Your task to perform on an android device: open app "Google Play Music" (install if not already installed) Image 0: 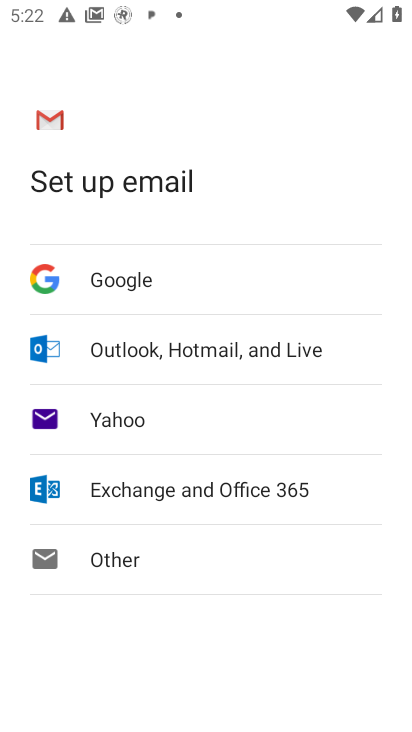
Step 0: press home button
Your task to perform on an android device: open app "Google Play Music" (install if not already installed) Image 1: 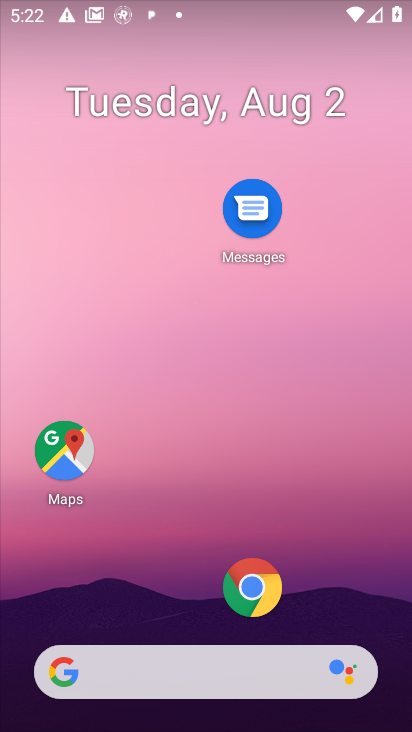
Step 1: drag from (157, 576) to (151, 135)
Your task to perform on an android device: open app "Google Play Music" (install if not already installed) Image 2: 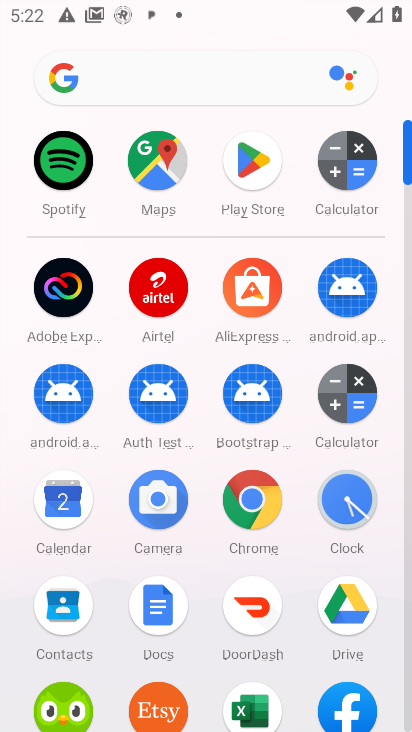
Step 2: click (247, 164)
Your task to perform on an android device: open app "Google Play Music" (install if not already installed) Image 3: 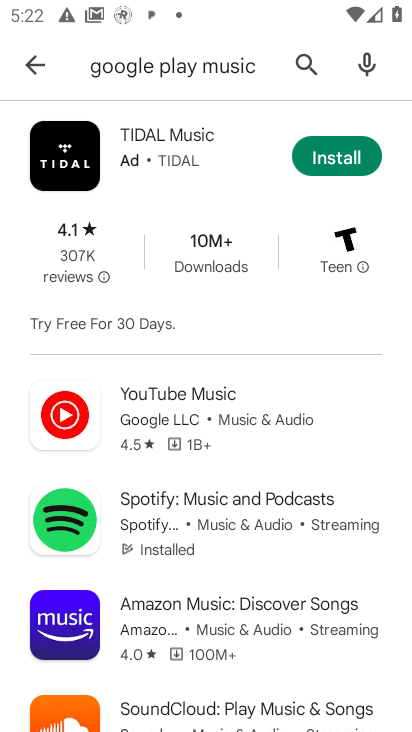
Step 3: click (301, 79)
Your task to perform on an android device: open app "Google Play Music" (install if not already installed) Image 4: 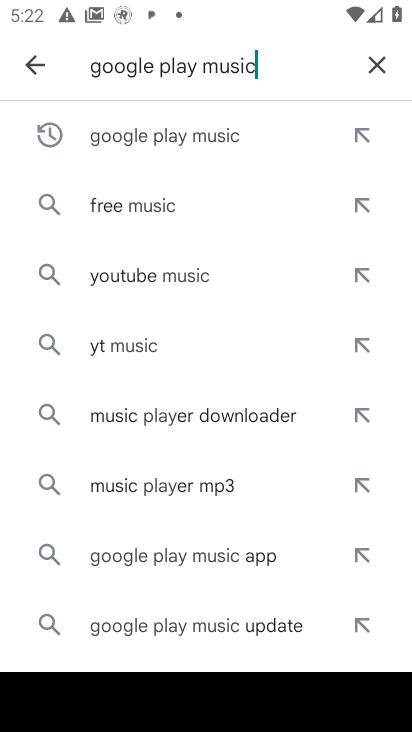
Step 4: click (379, 56)
Your task to perform on an android device: open app "Google Play Music" (install if not already installed) Image 5: 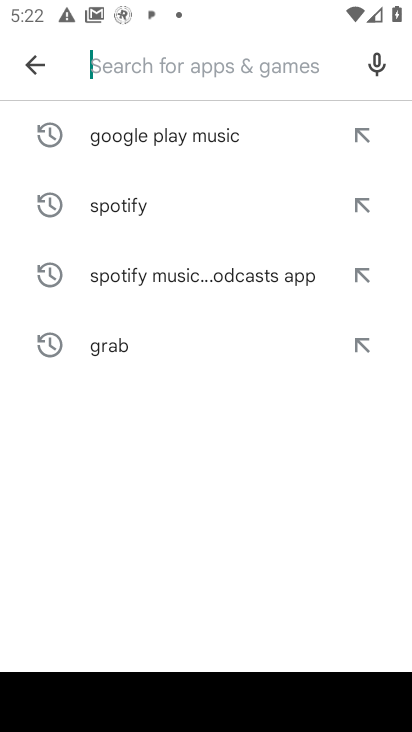
Step 5: type "Google Play Music"
Your task to perform on an android device: open app "Google Play Music" (install if not already installed) Image 6: 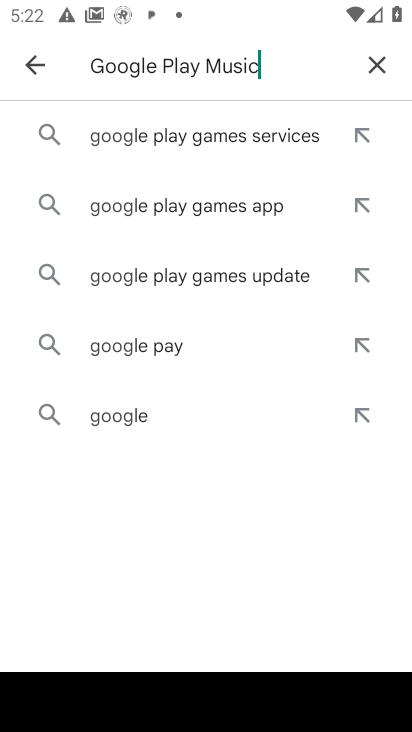
Step 6: type ""
Your task to perform on an android device: open app "Google Play Music" (install if not already installed) Image 7: 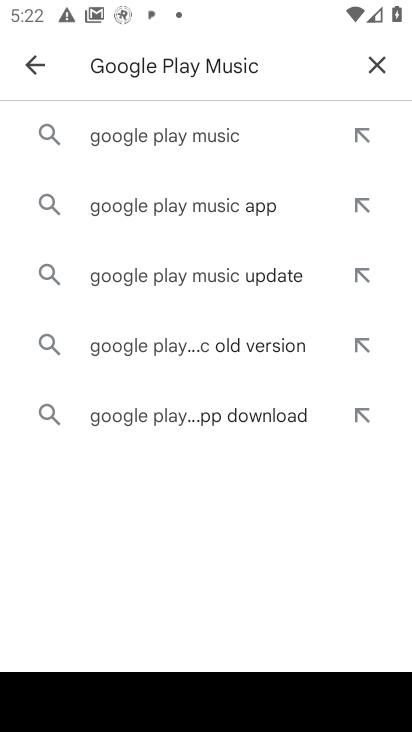
Step 7: click (185, 143)
Your task to perform on an android device: open app "Google Play Music" (install if not already installed) Image 8: 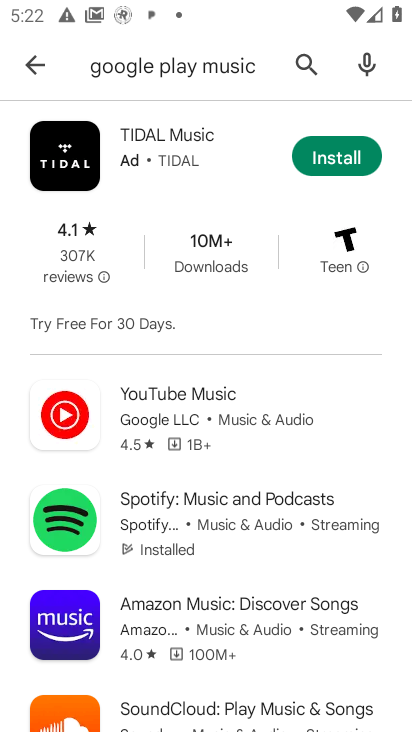
Step 8: task complete